Your task to perform on an android device: Open settings Image 0: 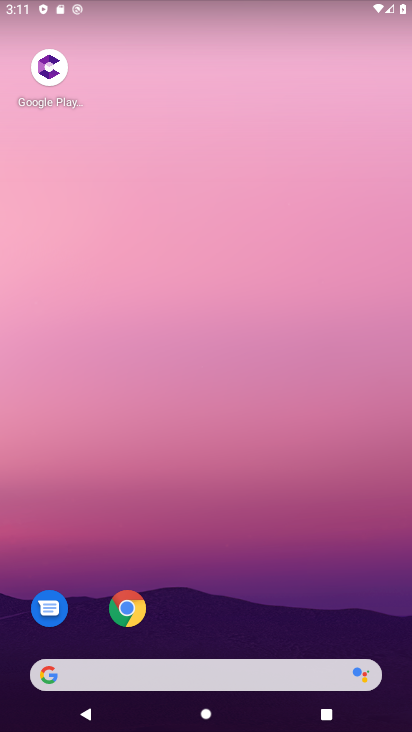
Step 0: drag from (222, 726) to (224, 178)
Your task to perform on an android device: Open settings Image 1: 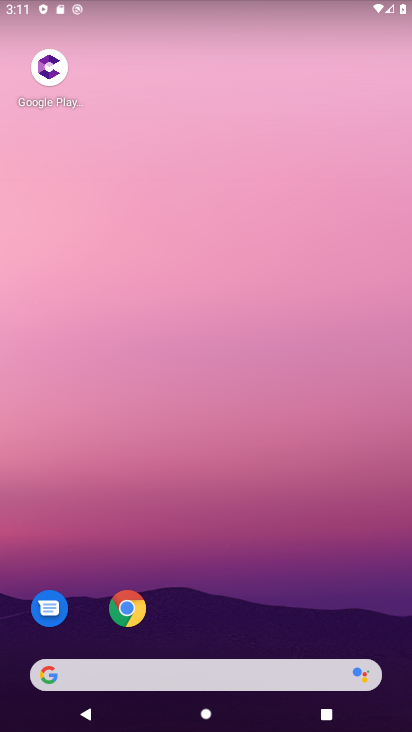
Step 1: drag from (233, 728) to (226, 82)
Your task to perform on an android device: Open settings Image 2: 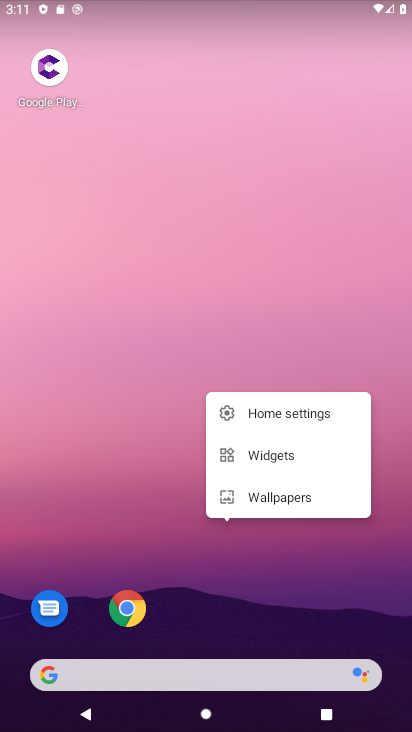
Step 2: click (179, 284)
Your task to perform on an android device: Open settings Image 3: 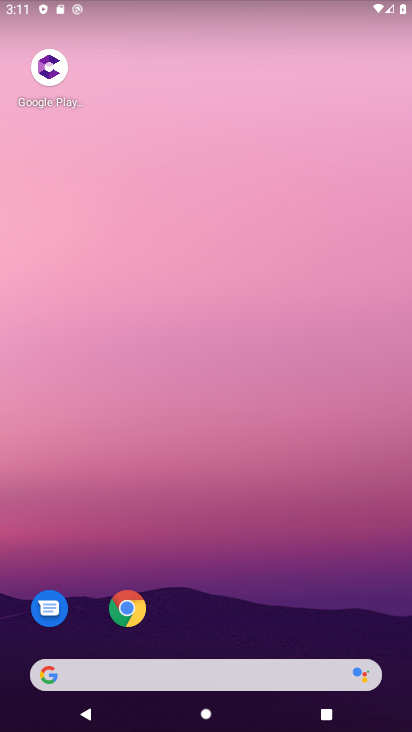
Step 3: drag from (225, 723) to (225, 169)
Your task to perform on an android device: Open settings Image 4: 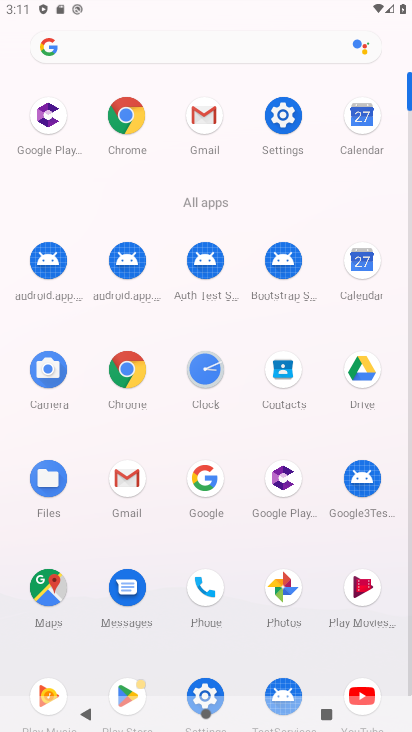
Step 4: click (286, 113)
Your task to perform on an android device: Open settings Image 5: 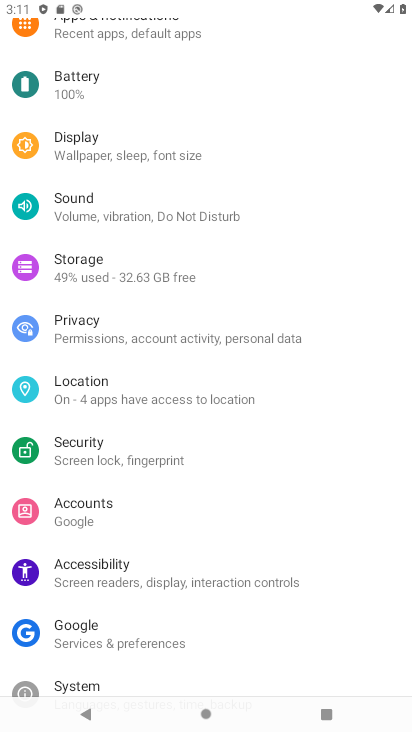
Step 5: task complete